Your task to perform on an android device: empty trash in the gmail app Image 0: 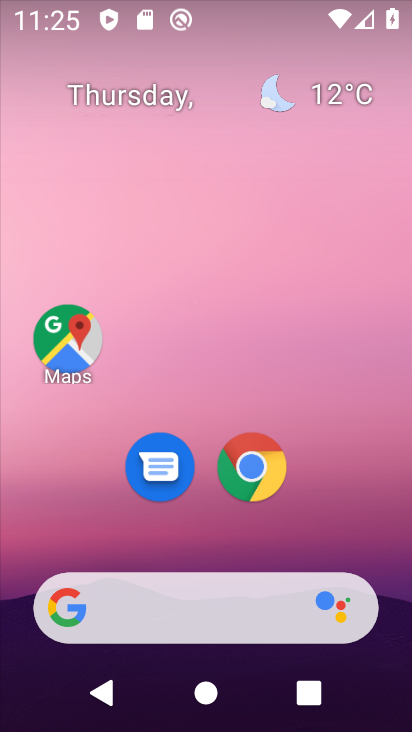
Step 0: drag from (396, 533) to (376, 113)
Your task to perform on an android device: empty trash in the gmail app Image 1: 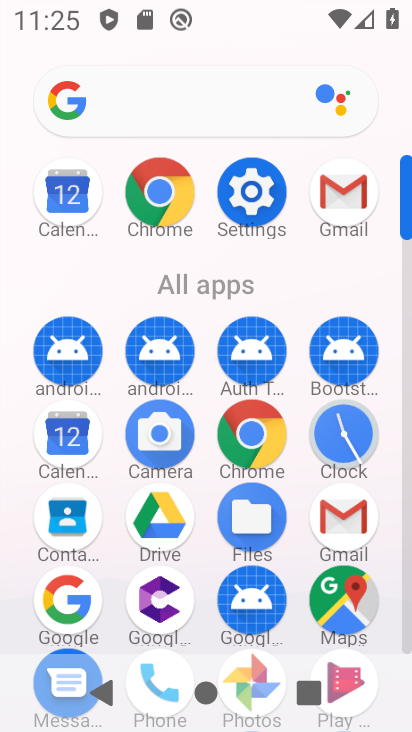
Step 1: click (335, 194)
Your task to perform on an android device: empty trash in the gmail app Image 2: 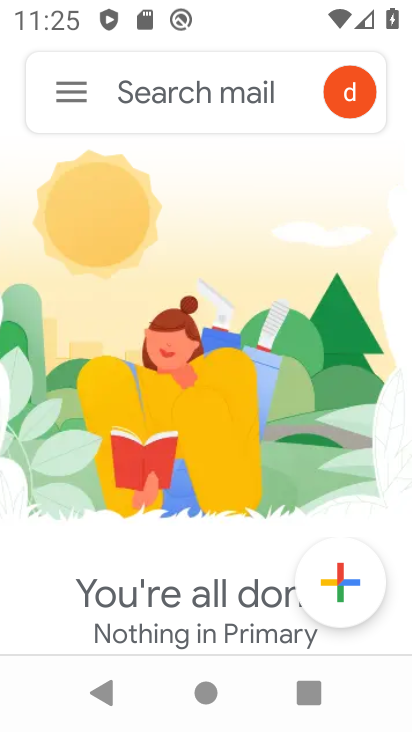
Step 2: click (51, 87)
Your task to perform on an android device: empty trash in the gmail app Image 3: 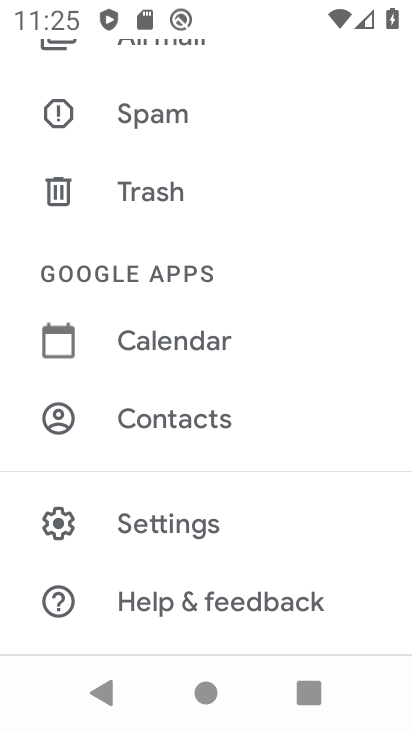
Step 3: click (155, 214)
Your task to perform on an android device: empty trash in the gmail app Image 4: 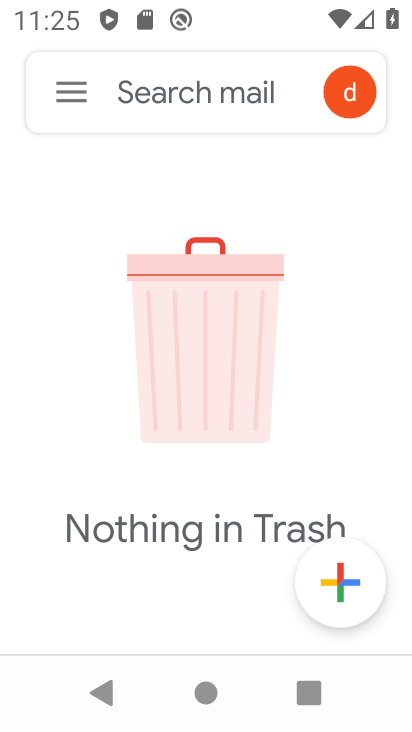
Step 4: task complete